Your task to perform on an android device: star an email in the gmail app Image 0: 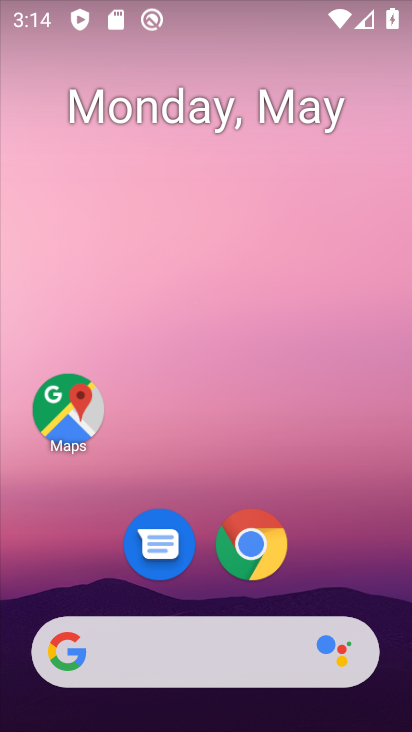
Step 0: drag from (300, 620) to (310, 195)
Your task to perform on an android device: star an email in the gmail app Image 1: 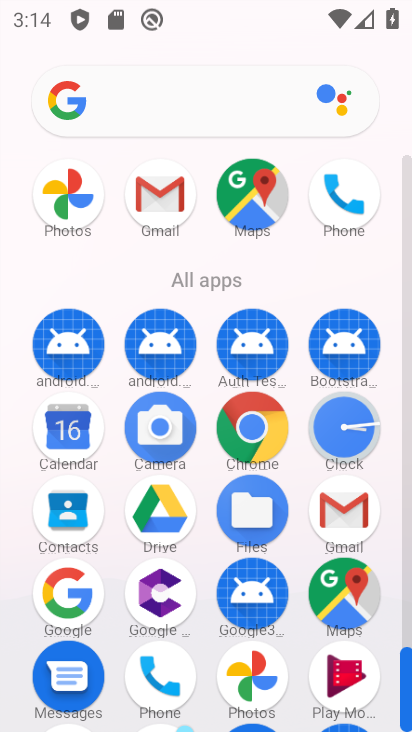
Step 1: click (352, 502)
Your task to perform on an android device: star an email in the gmail app Image 2: 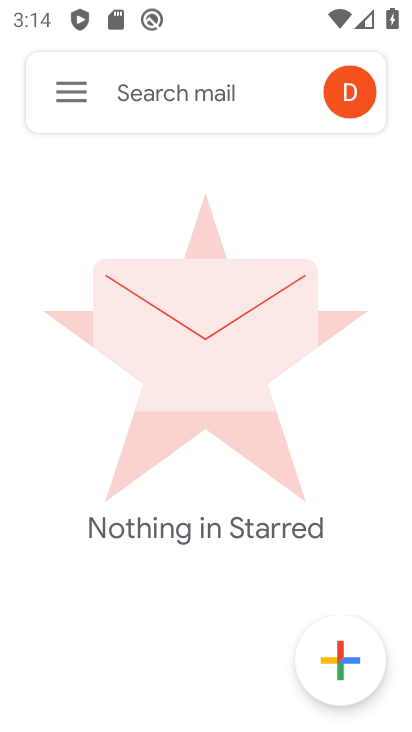
Step 2: click (74, 83)
Your task to perform on an android device: star an email in the gmail app Image 3: 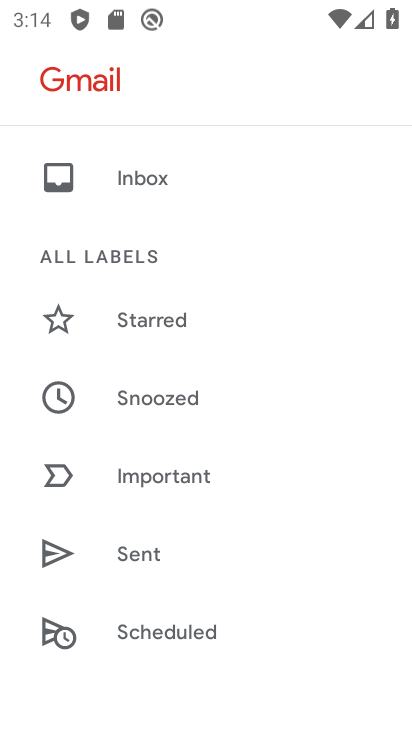
Step 3: task complete